Your task to perform on an android device: turn on location history Image 0: 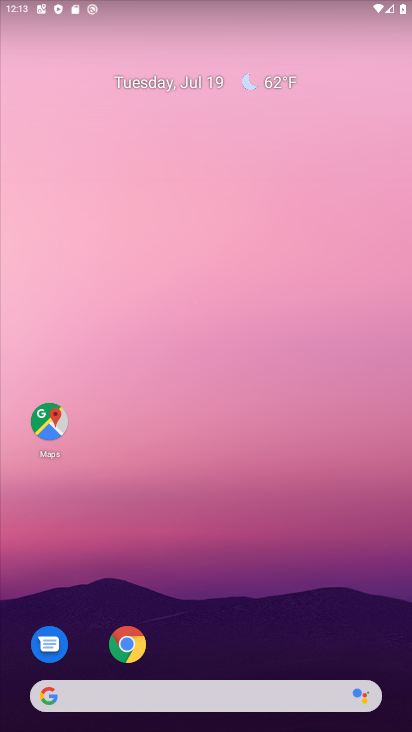
Step 0: click (53, 416)
Your task to perform on an android device: turn on location history Image 1: 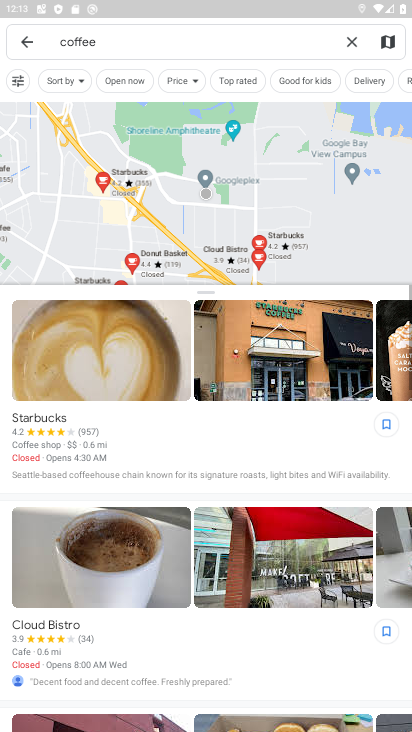
Step 1: click (22, 35)
Your task to perform on an android device: turn on location history Image 2: 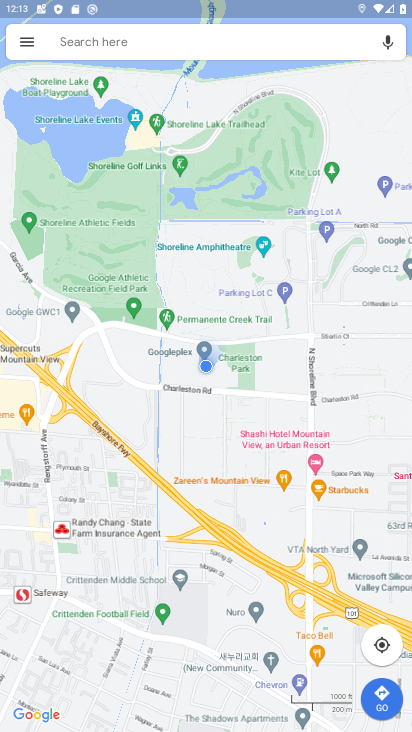
Step 2: click (27, 46)
Your task to perform on an android device: turn on location history Image 3: 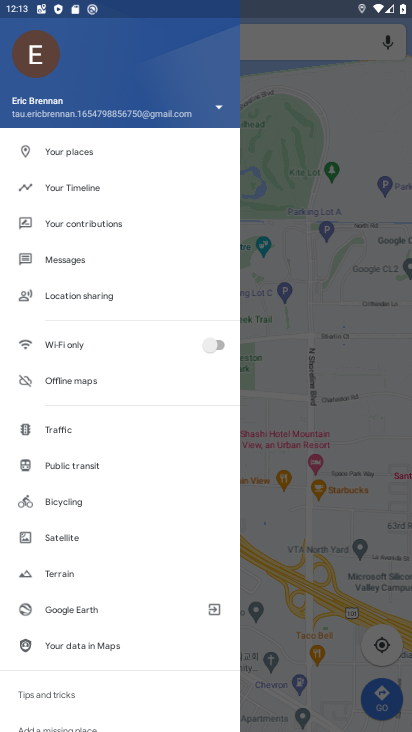
Step 3: click (73, 185)
Your task to perform on an android device: turn on location history Image 4: 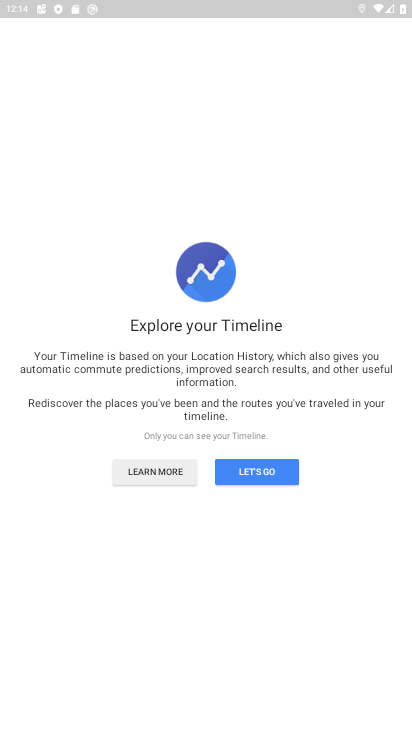
Step 4: click (253, 471)
Your task to perform on an android device: turn on location history Image 5: 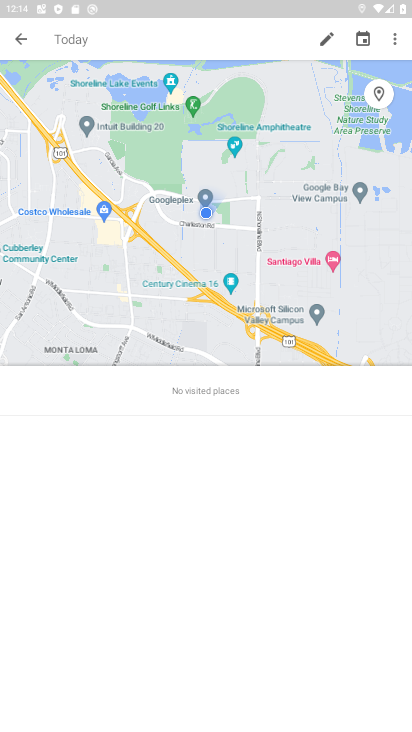
Step 5: click (395, 33)
Your task to perform on an android device: turn on location history Image 6: 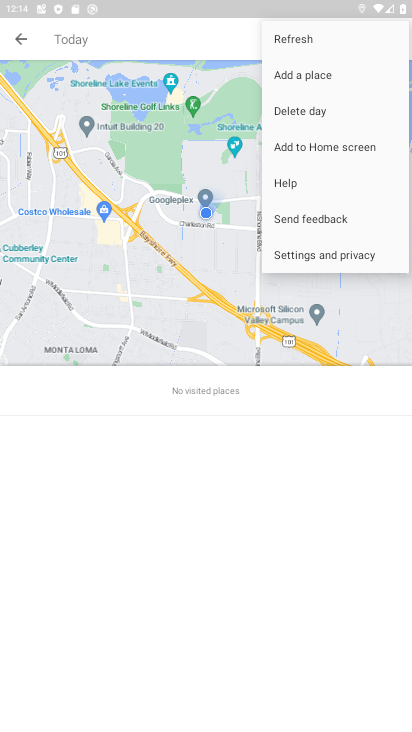
Step 6: click (321, 251)
Your task to perform on an android device: turn on location history Image 7: 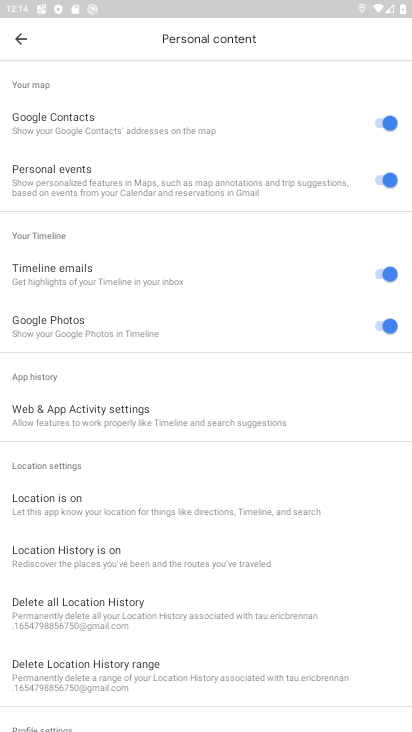
Step 7: click (73, 544)
Your task to perform on an android device: turn on location history Image 8: 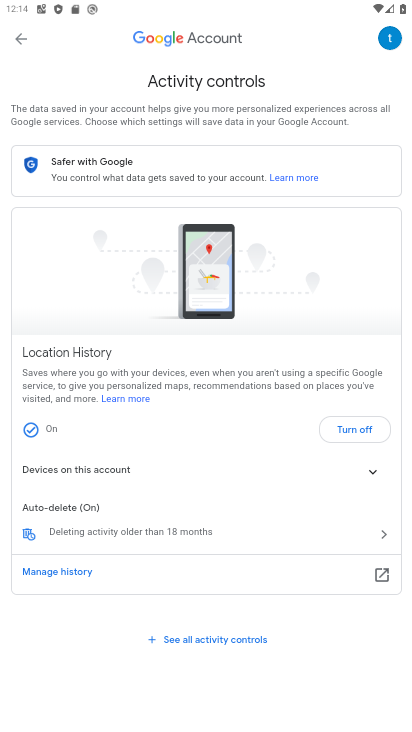
Step 8: task complete